Your task to perform on an android device: turn on wifi Image 0: 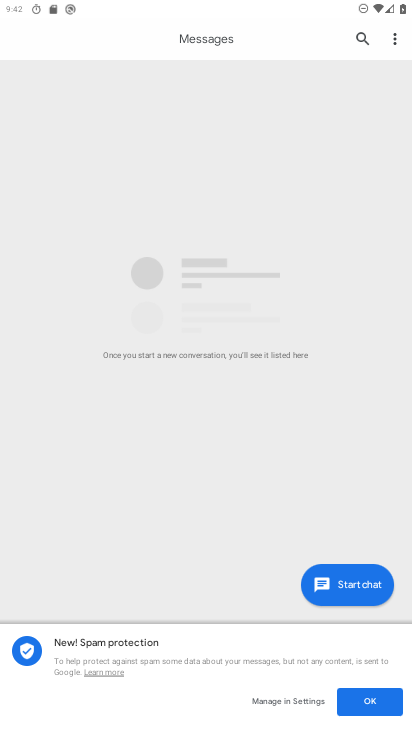
Step 0: press home button
Your task to perform on an android device: turn on wifi Image 1: 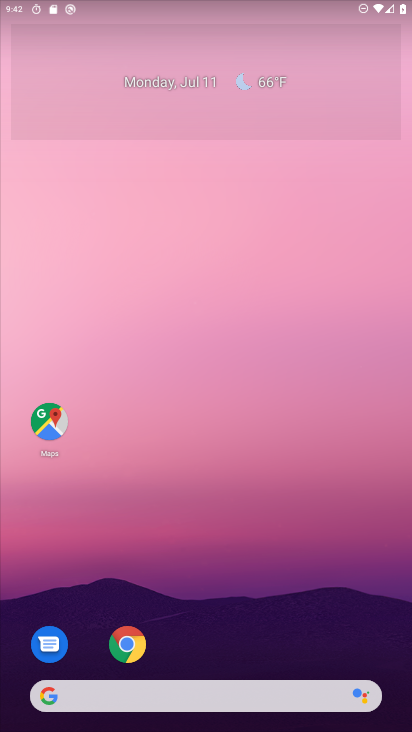
Step 1: drag from (285, 530) to (288, 102)
Your task to perform on an android device: turn on wifi Image 2: 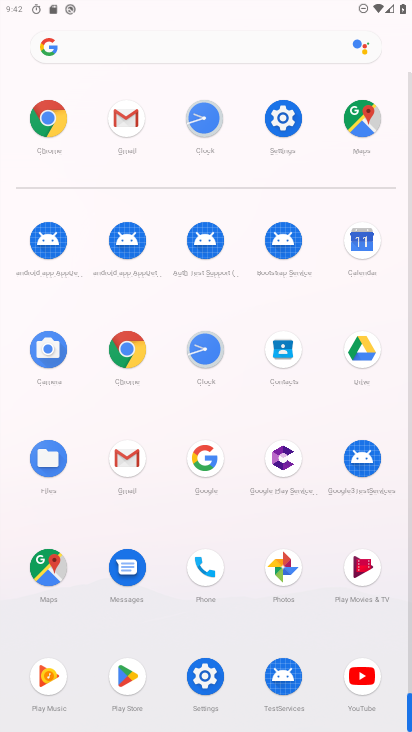
Step 2: click (281, 109)
Your task to perform on an android device: turn on wifi Image 3: 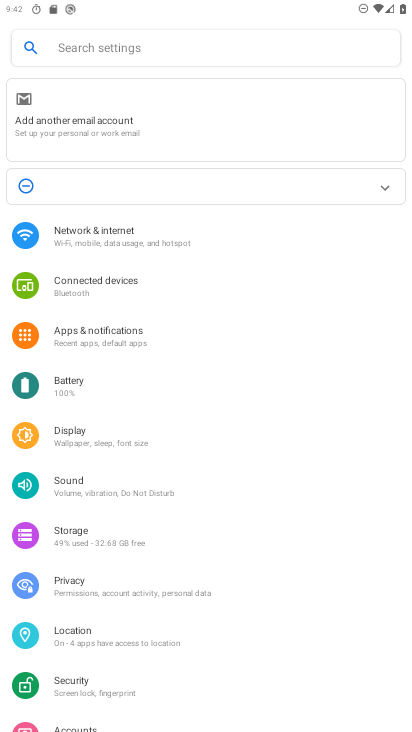
Step 3: click (133, 237)
Your task to perform on an android device: turn on wifi Image 4: 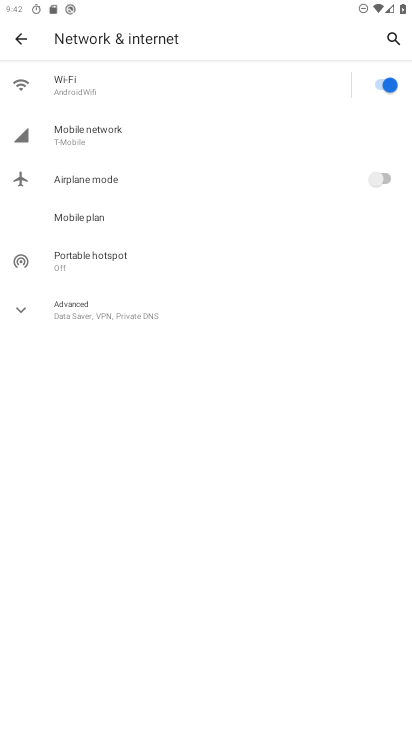
Step 4: task complete